Your task to perform on an android device: Go to privacy settings Image 0: 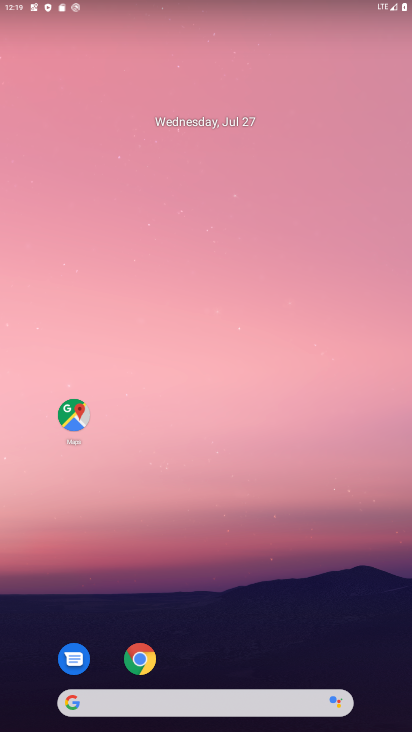
Step 0: drag from (220, 660) to (215, 124)
Your task to perform on an android device: Go to privacy settings Image 1: 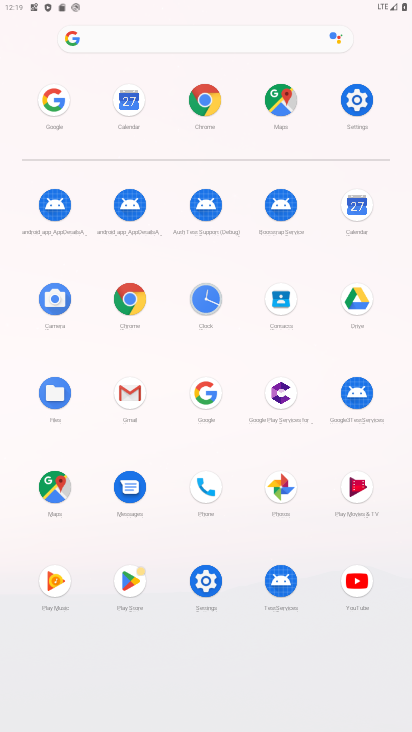
Step 1: click (357, 111)
Your task to perform on an android device: Go to privacy settings Image 2: 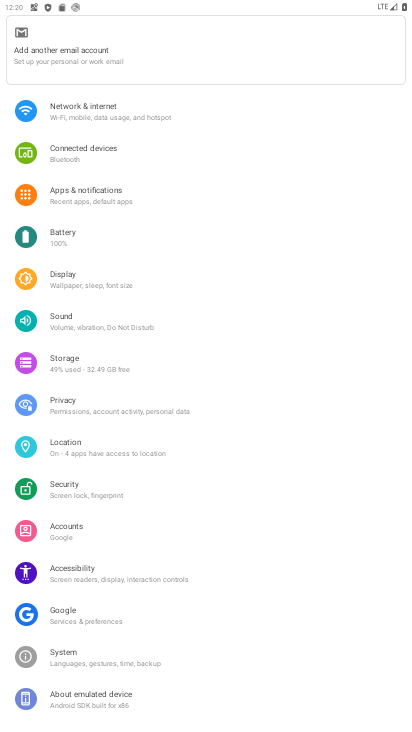
Step 2: click (76, 393)
Your task to perform on an android device: Go to privacy settings Image 3: 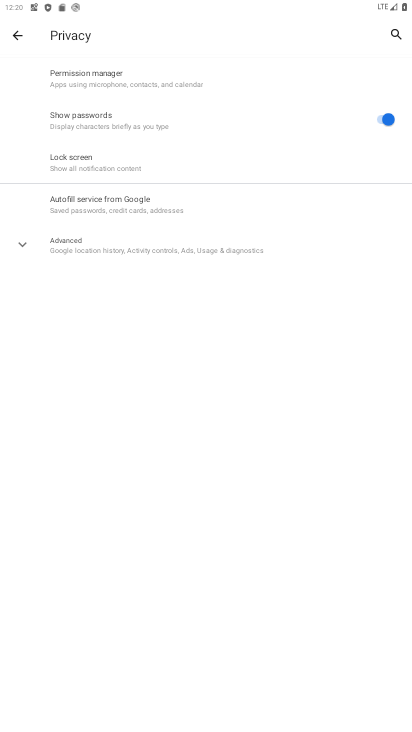
Step 3: click (55, 237)
Your task to perform on an android device: Go to privacy settings Image 4: 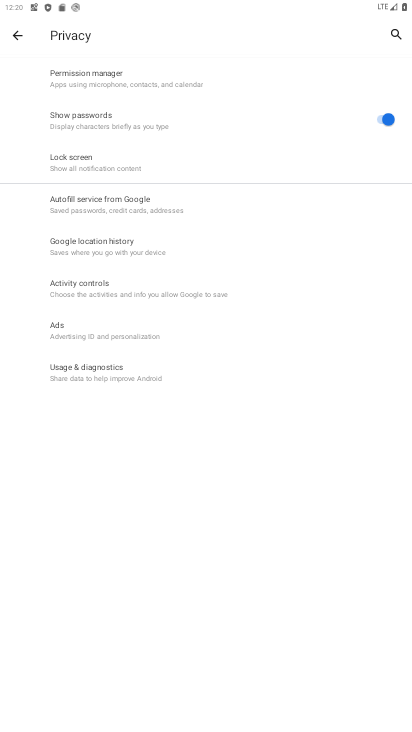
Step 4: task complete